Your task to perform on an android device: turn off notifications in google photos Image 0: 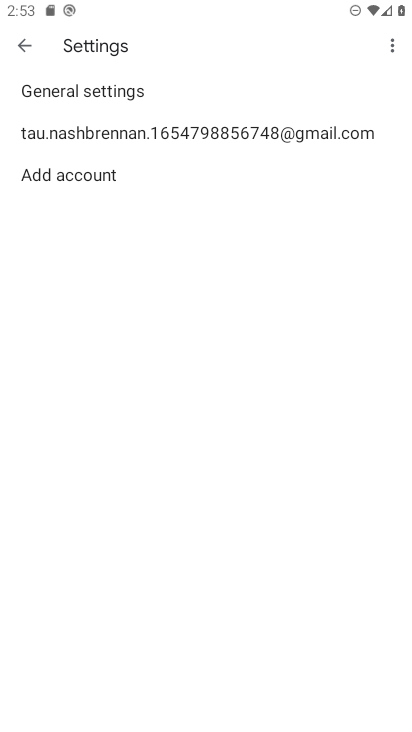
Step 0: press home button
Your task to perform on an android device: turn off notifications in google photos Image 1: 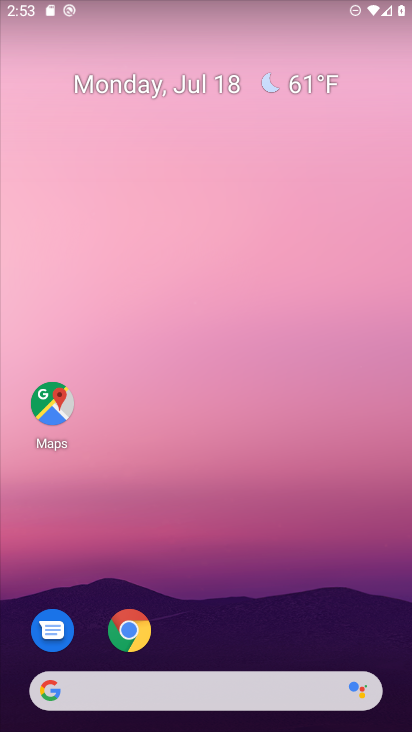
Step 1: drag from (241, 630) to (228, 121)
Your task to perform on an android device: turn off notifications in google photos Image 2: 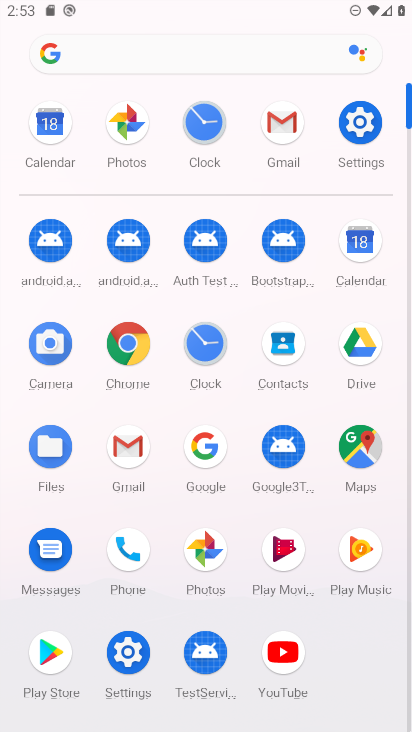
Step 2: click (127, 126)
Your task to perform on an android device: turn off notifications in google photos Image 3: 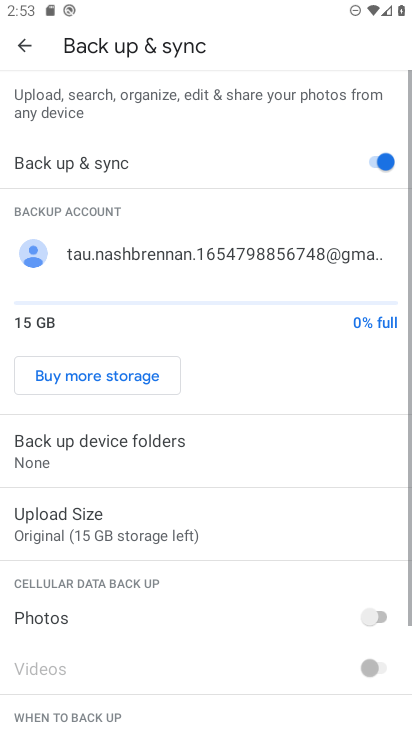
Step 3: click (28, 45)
Your task to perform on an android device: turn off notifications in google photos Image 4: 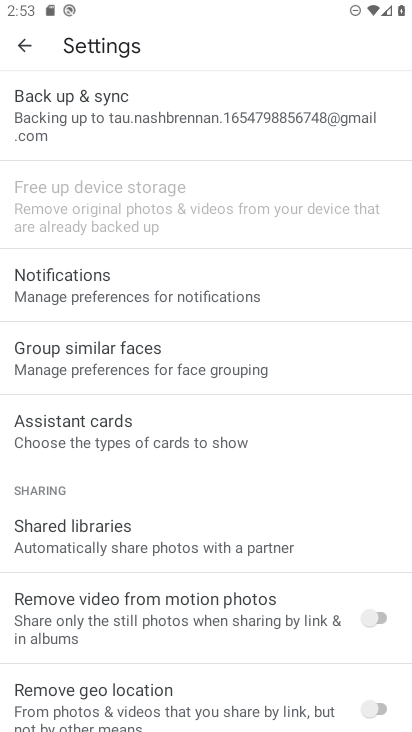
Step 4: click (115, 283)
Your task to perform on an android device: turn off notifications in google photos Image 5: 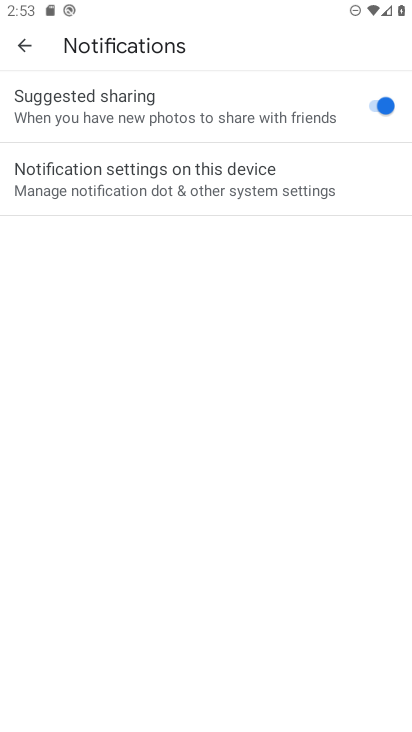
Step 5: click (379, 101)
Your task to perform on an android device: turn off notifications in google photos Image 6: 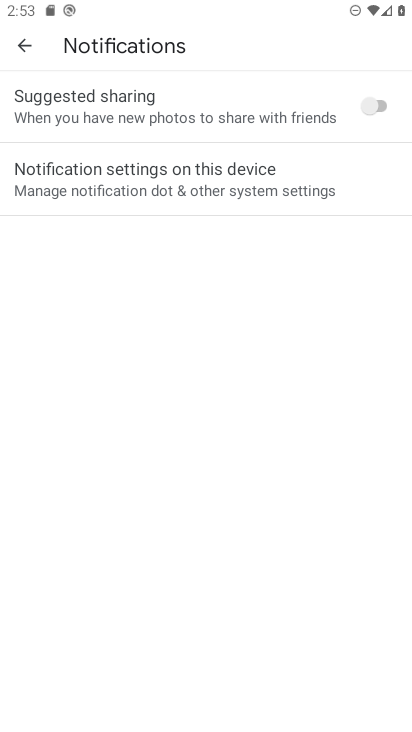
Step 6: task complete